Your task to perform on an android device: What's on my calendar today? Image 0: 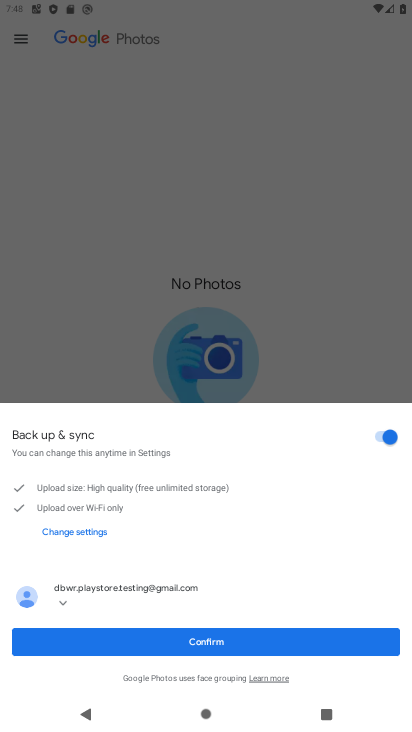
Step 0: press home button
Your task to perform on an android device: What's on my calendar today? Image 1: 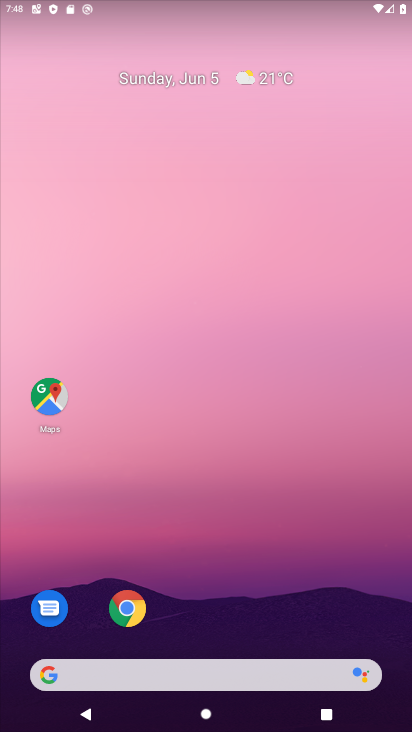
Step 1: drag from (193, 602) to (363, 12)
Your task to perform on an android device: What's on my calendar today? Image 2: 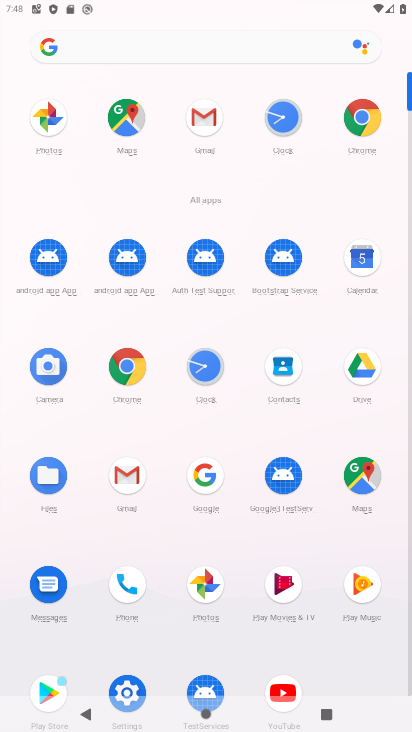
Step 2: click (371, 265)
Your task to perform on an android device: What's on my calendar today? Image 3: 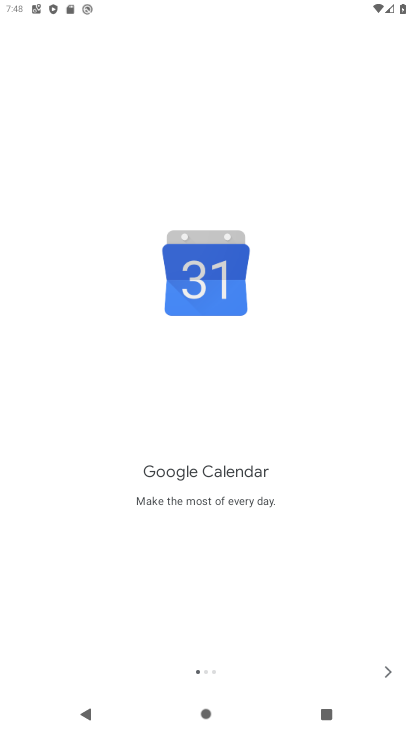
Step 3: click (386, 667)
Your task to perform on an android device: What's on my calendar today? Image 4: 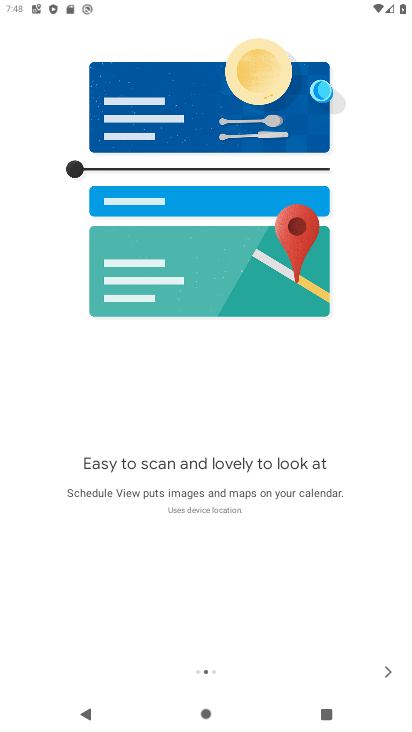
Step 4: click (384, 666)
Your task to perform on an android device: What's on my calendar today? Image 5: 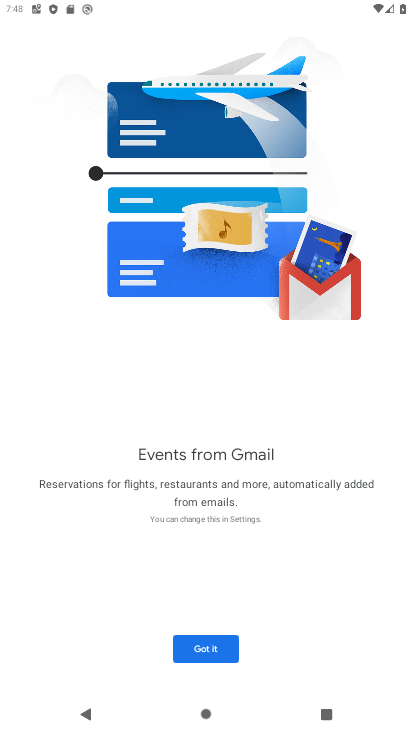
Step 5: click (202, 648)
Your task to perform on an android device: What's on my calendar today? Image 6: 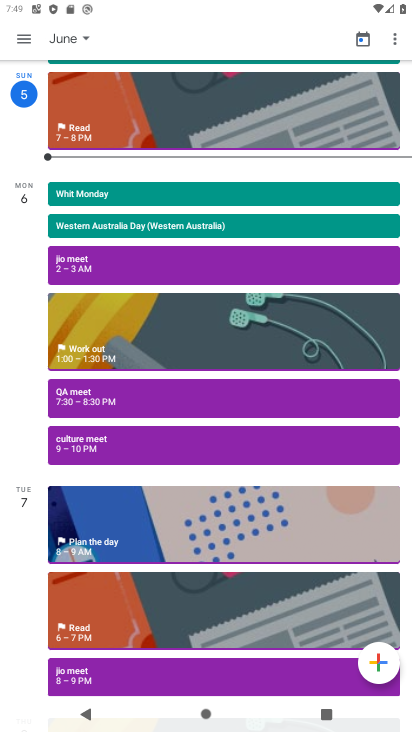
Step 6: click (25, 43)
Your task to perform on an android device: What's on my calendar today? Image 7: 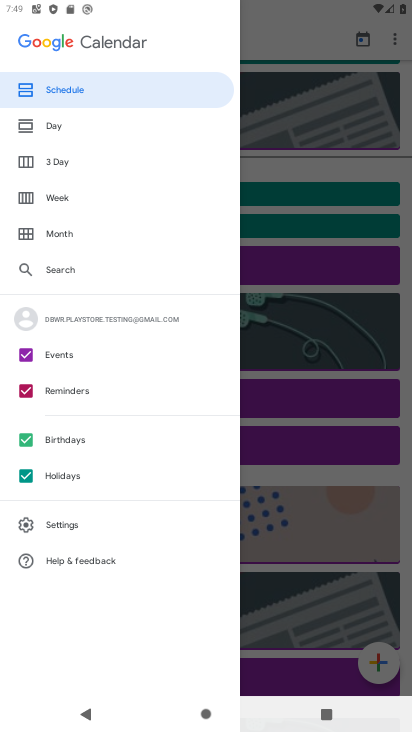
Step 7: click (62, 122)
Your task to perform on an android device: What's on my calendar today? Image 8: 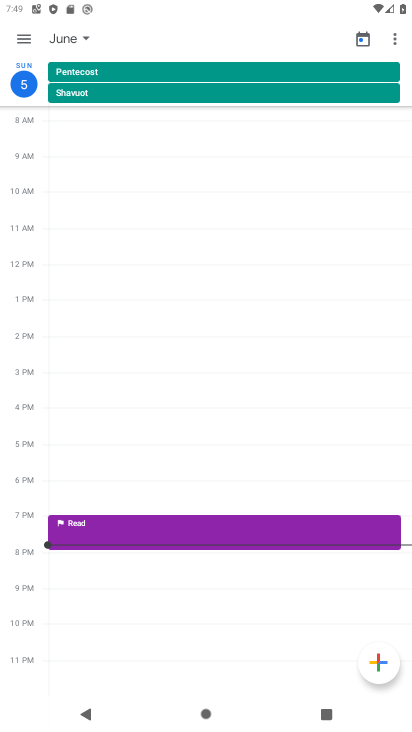
Step 8: task complete